Your task to perform on an android device: Empty the shopping cart on target. Add asus rog to the cart on target Image 0: 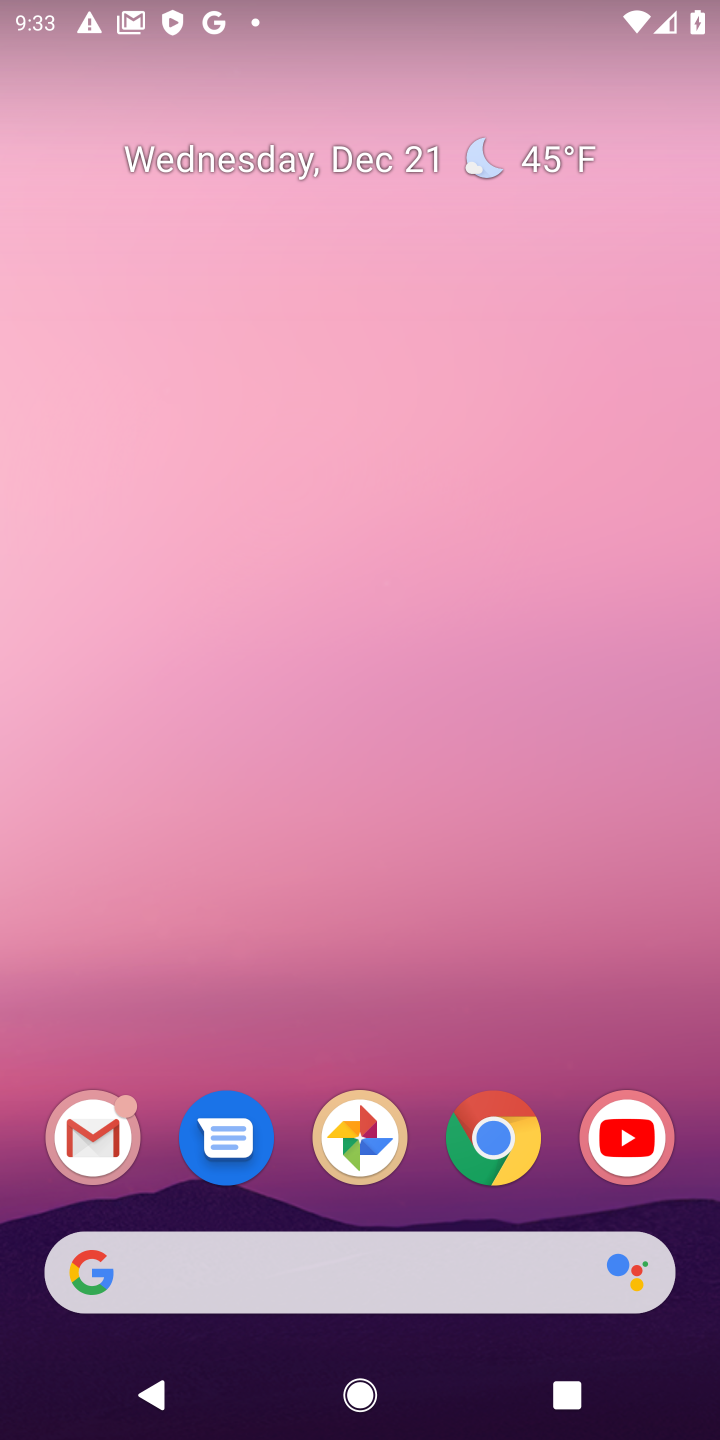
Step 0: click (501, 1145)
Your task to perform on an android device: Empty the shopping cart on target. Add asus rog to the cart on target Image 1: 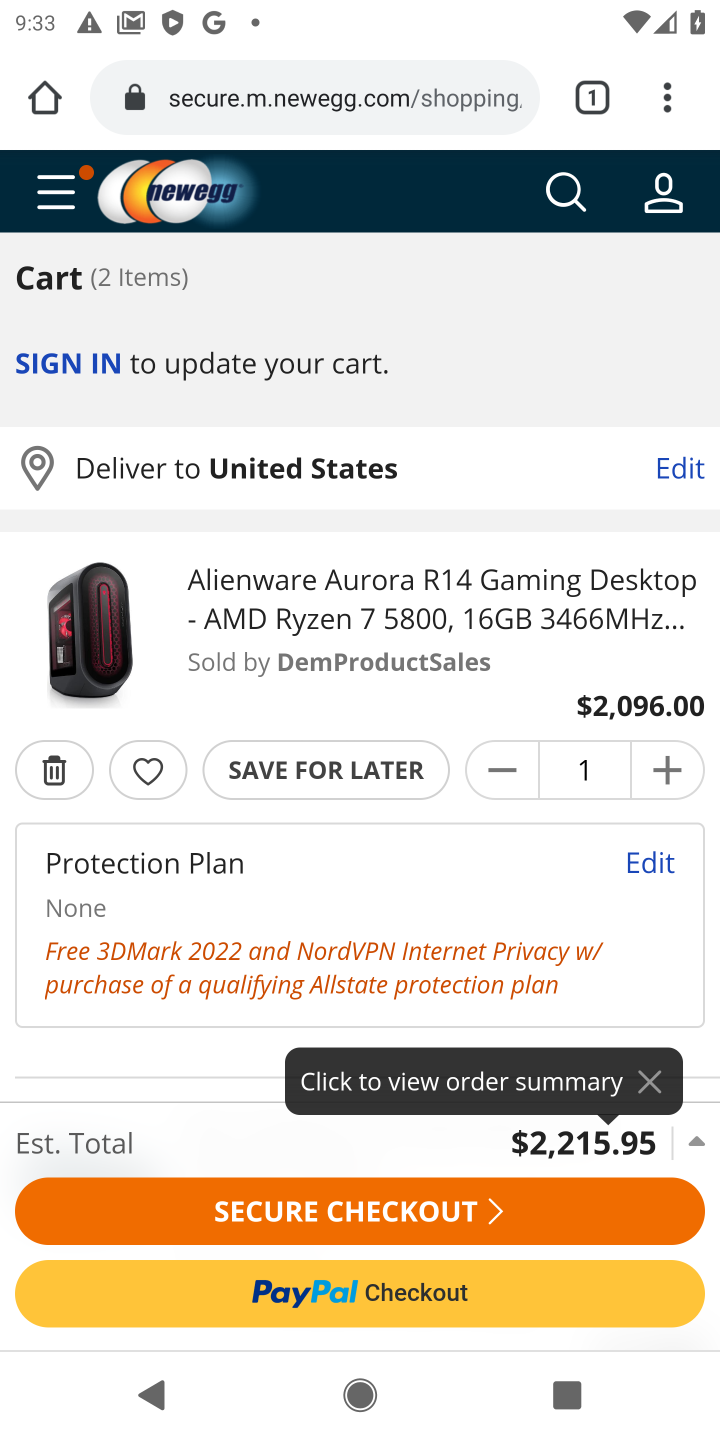
Step 1: click (275, 104)
Your task to perform on an android device: Empty the shopping cart on target. Add asus rog to the cart on target Image 2: 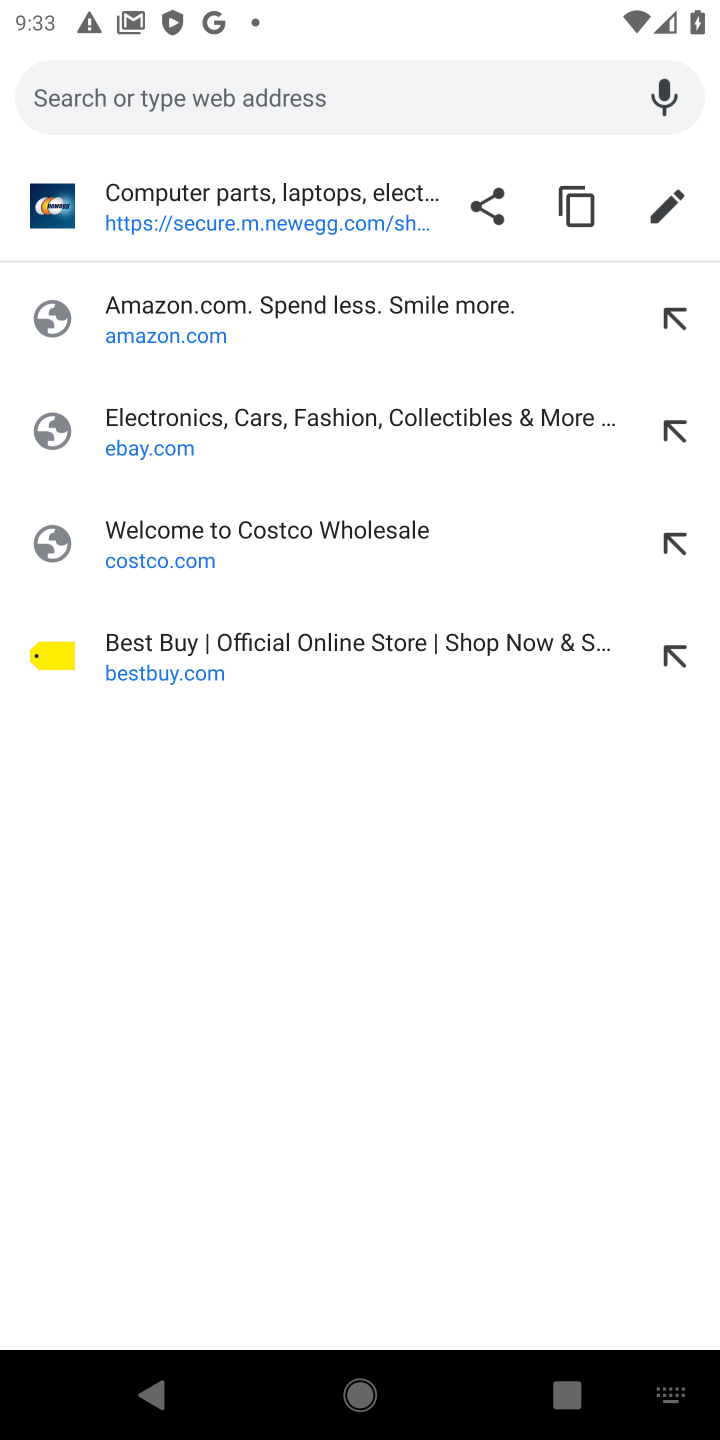
Step 2: type "target.com"
Your task to perform on an android device: Empty the shopping cart on target. Add asus rog to the cart on target Image 3: 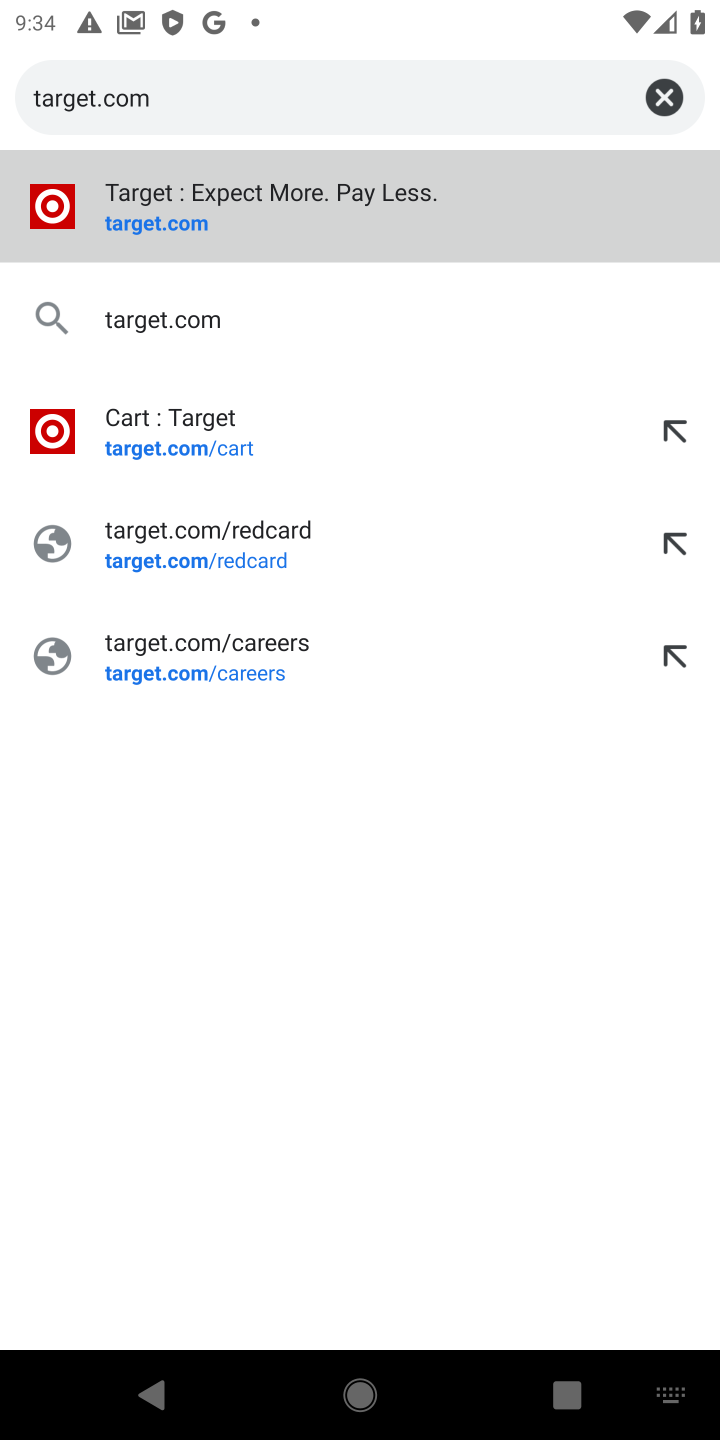
Step 3: click (167, 217)
Your task to perform on an android device: Empty the shopping cart on target. Add asus rog to the cart on target Image 4: 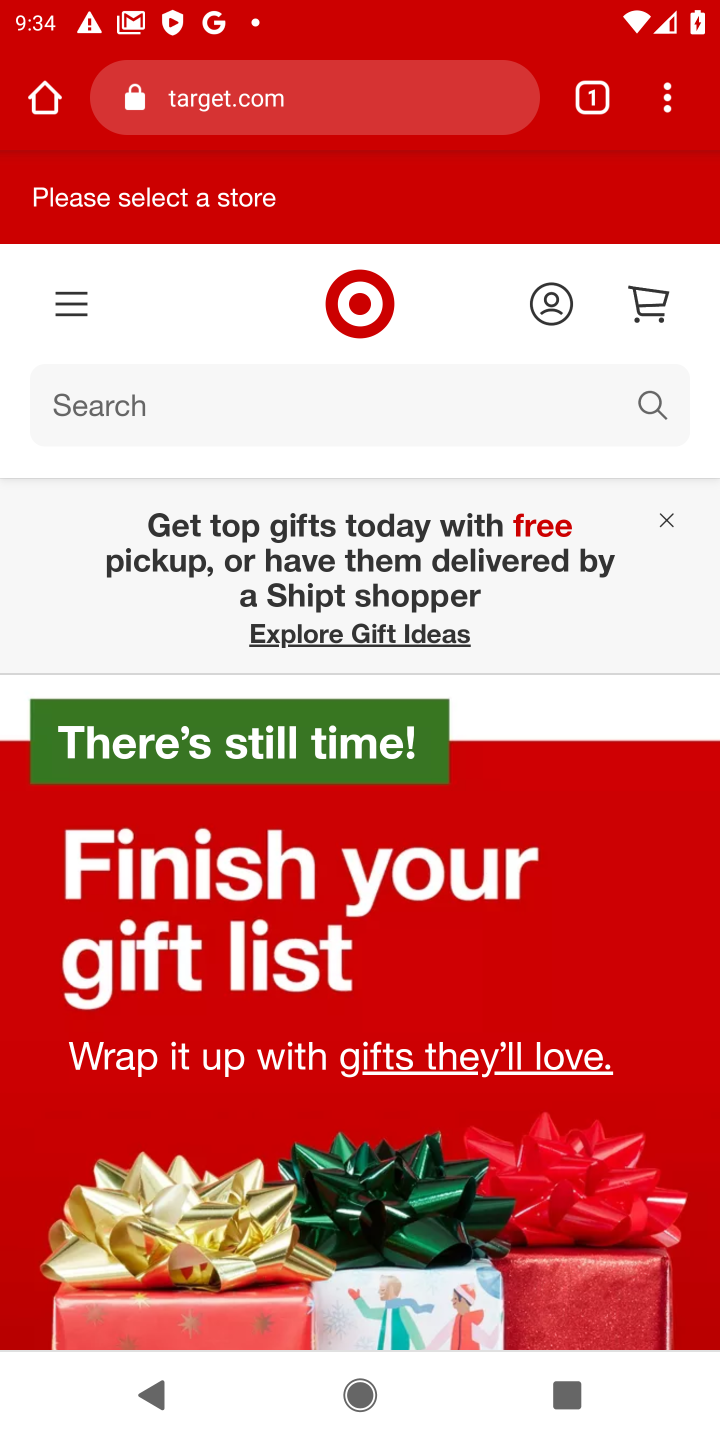
Step 4: click (647, 302)
Your task to perform on an android device: Empty the shopping cart on target. Add asus rog to the cart on target Image 5: 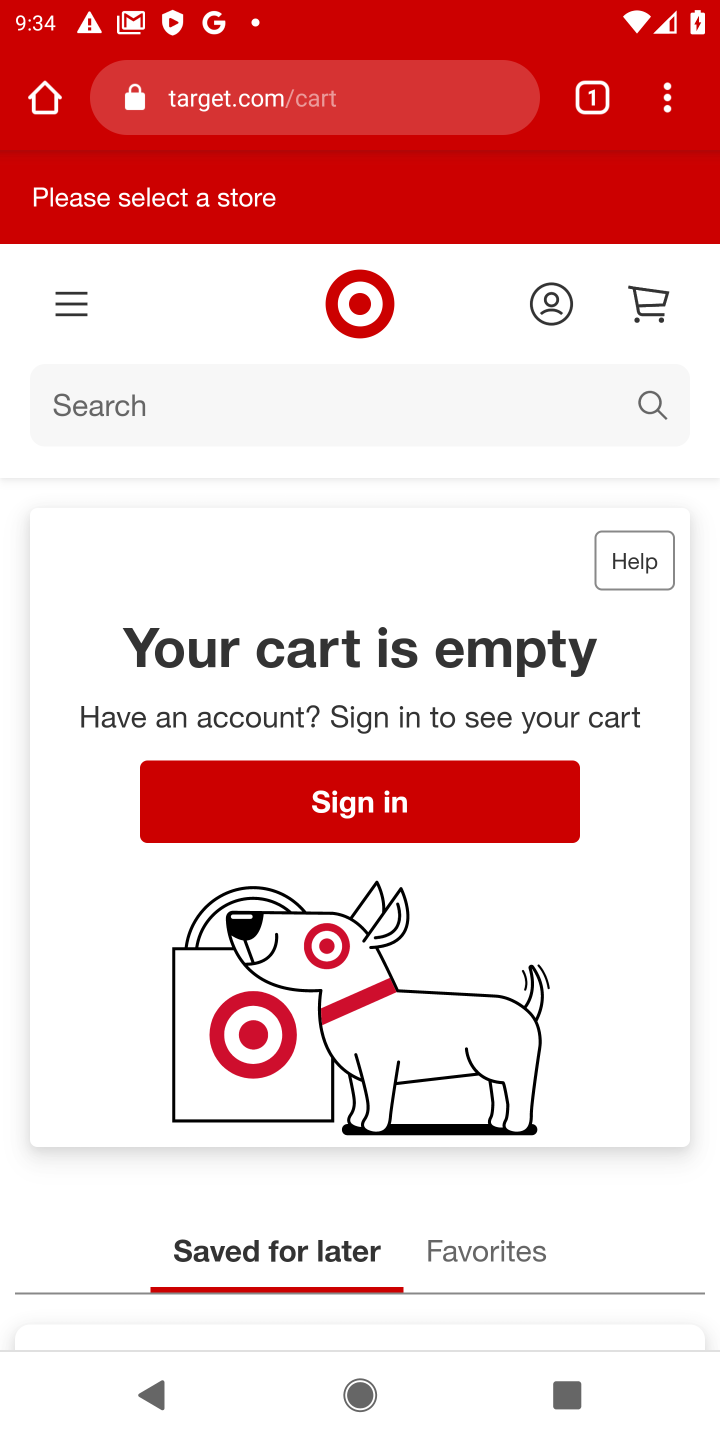
Step 5: click (102, 400)
Your task to perform on an android device: Empty the shopping cart on target. Add asus rog to the cart on target Image 6: 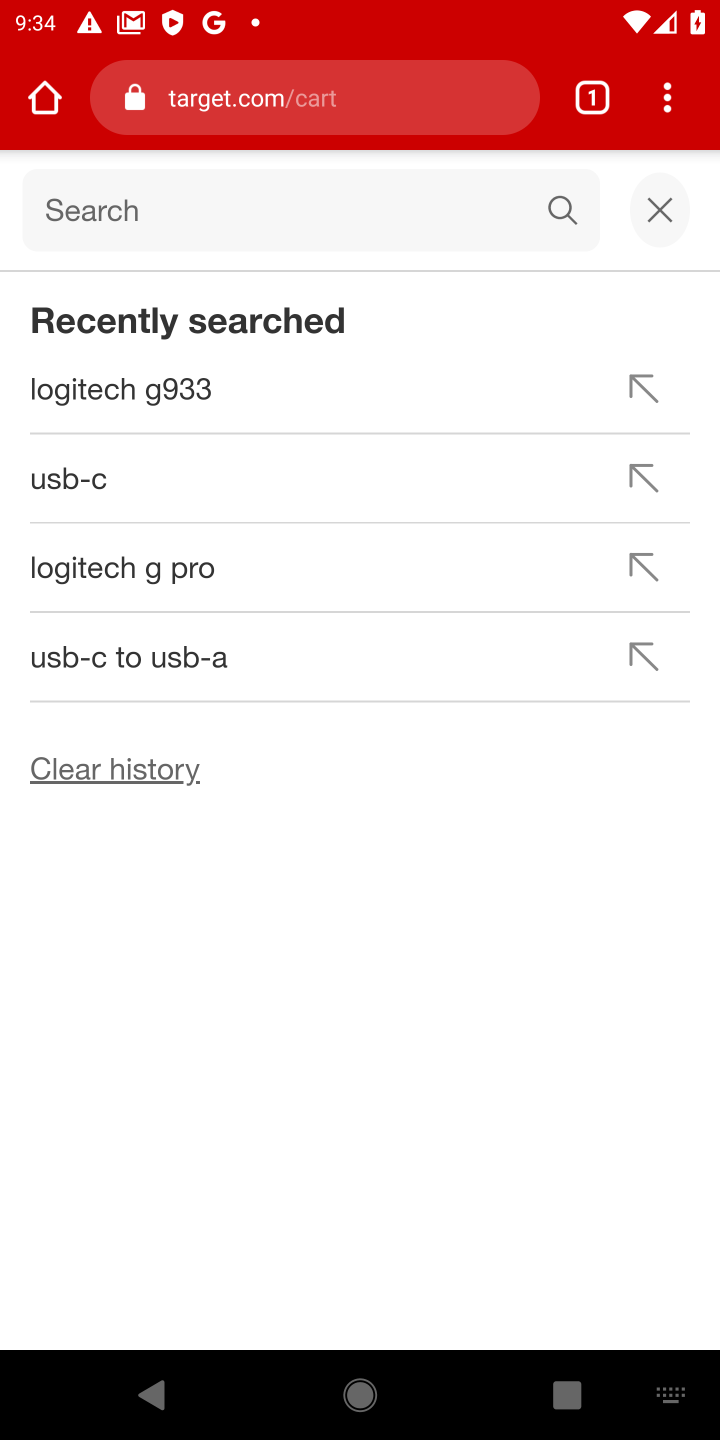
Step 6: type "asus rog"
Your task to perform on an android device: Empty the shopping cart on target. Add asus rog to the cart on target Image 7: 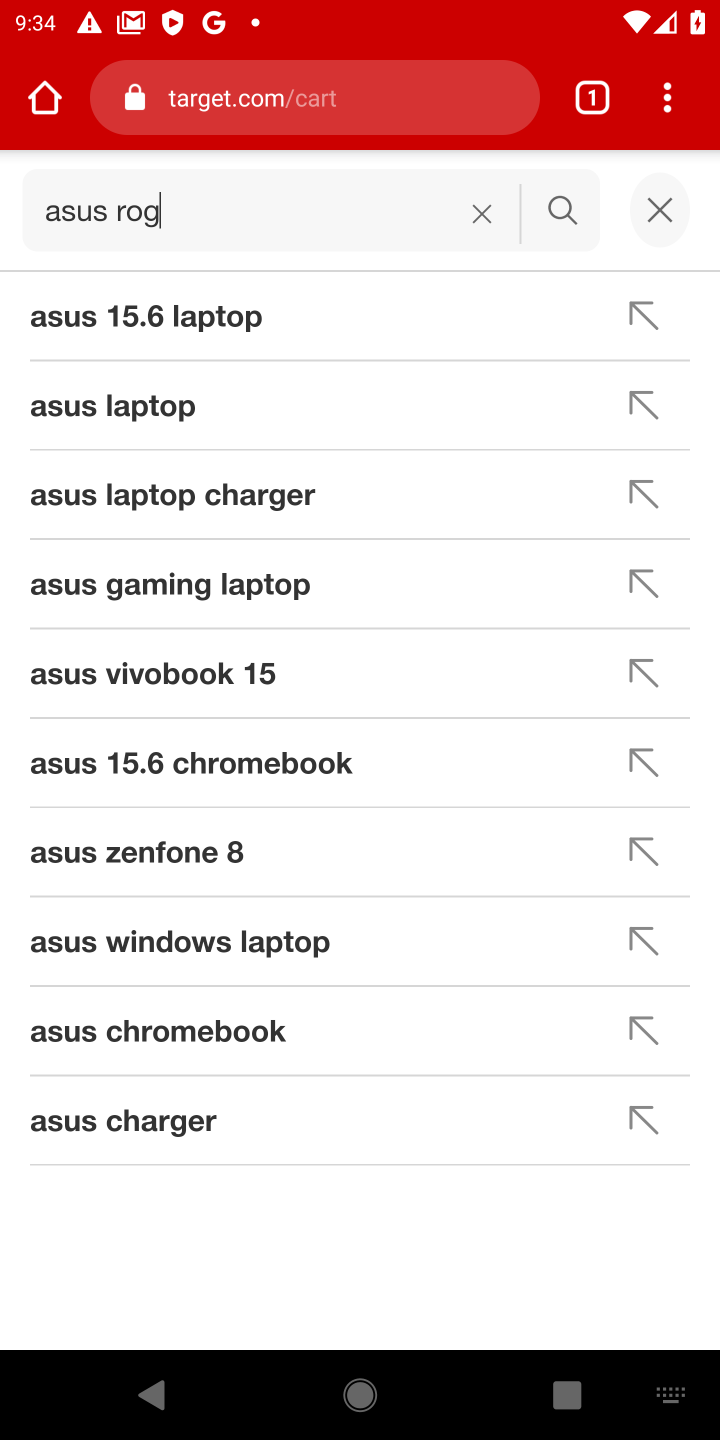
Step 7: click (555, 210)
Your task to perform on an android device: Empty the shopping cart on target. Add asus rog to the cart on target Image 8: 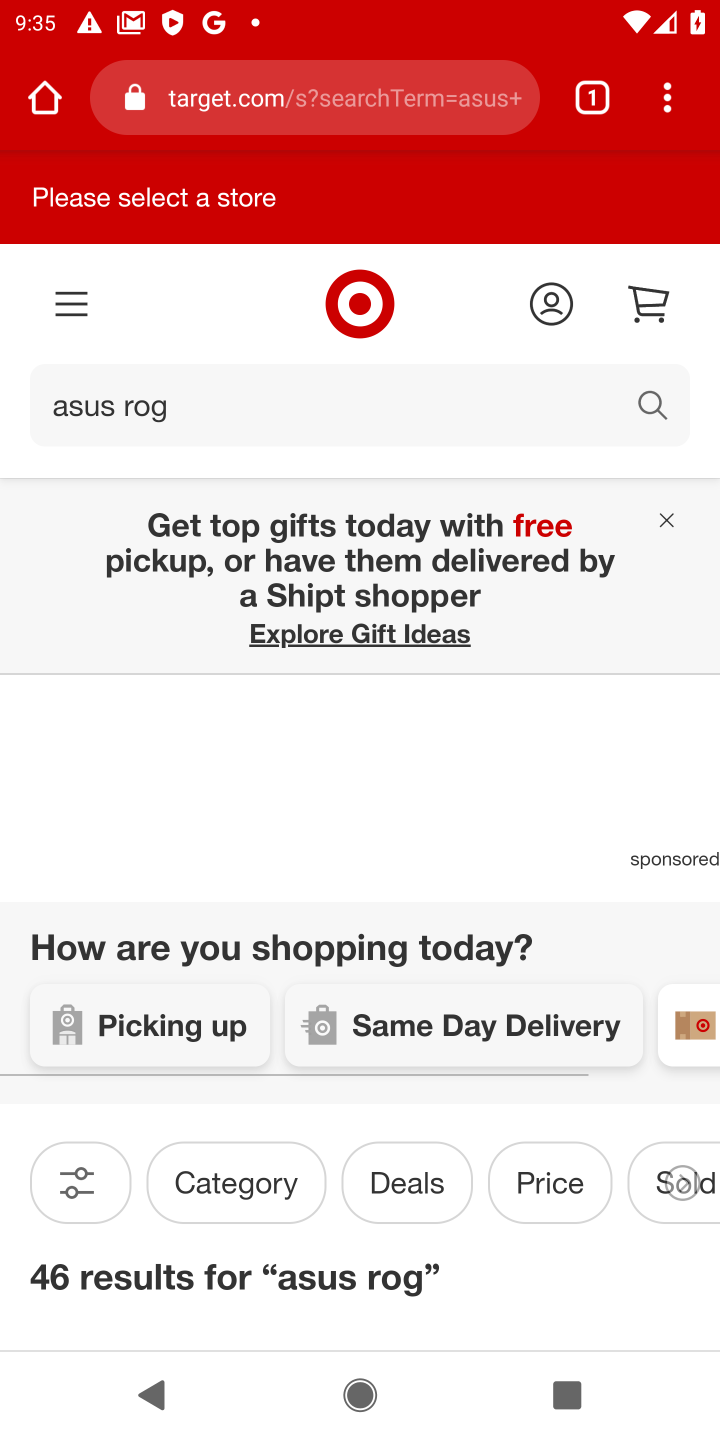
Step 8: drag from (326, 1014) to (340, 496)
Your task to perform on an android device: Empty the shopping cart on target. Add asus rog to the cart on target Image 9: 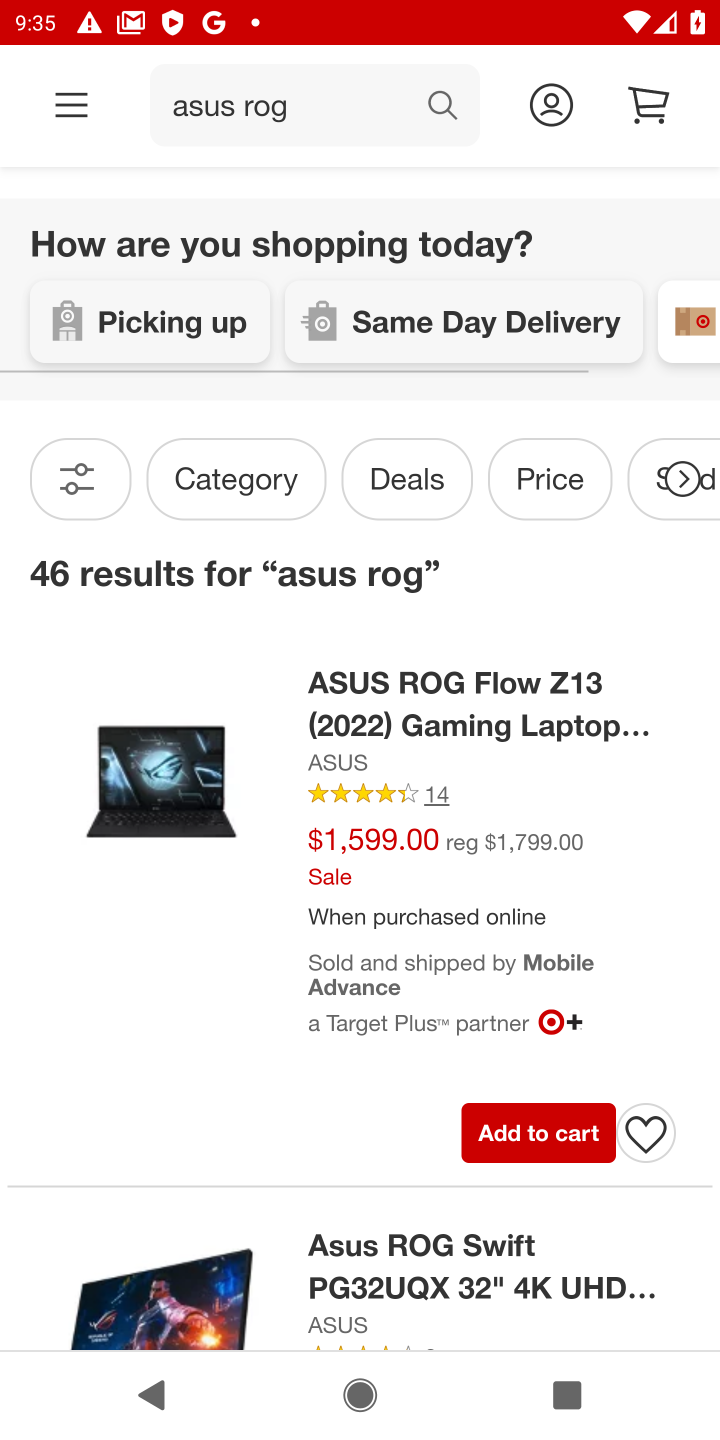
Step 9: click (527, 1137)
Your task to perform on an android device: Empty the shopping cart on target. Add asus rog to the cart on target Image 10: 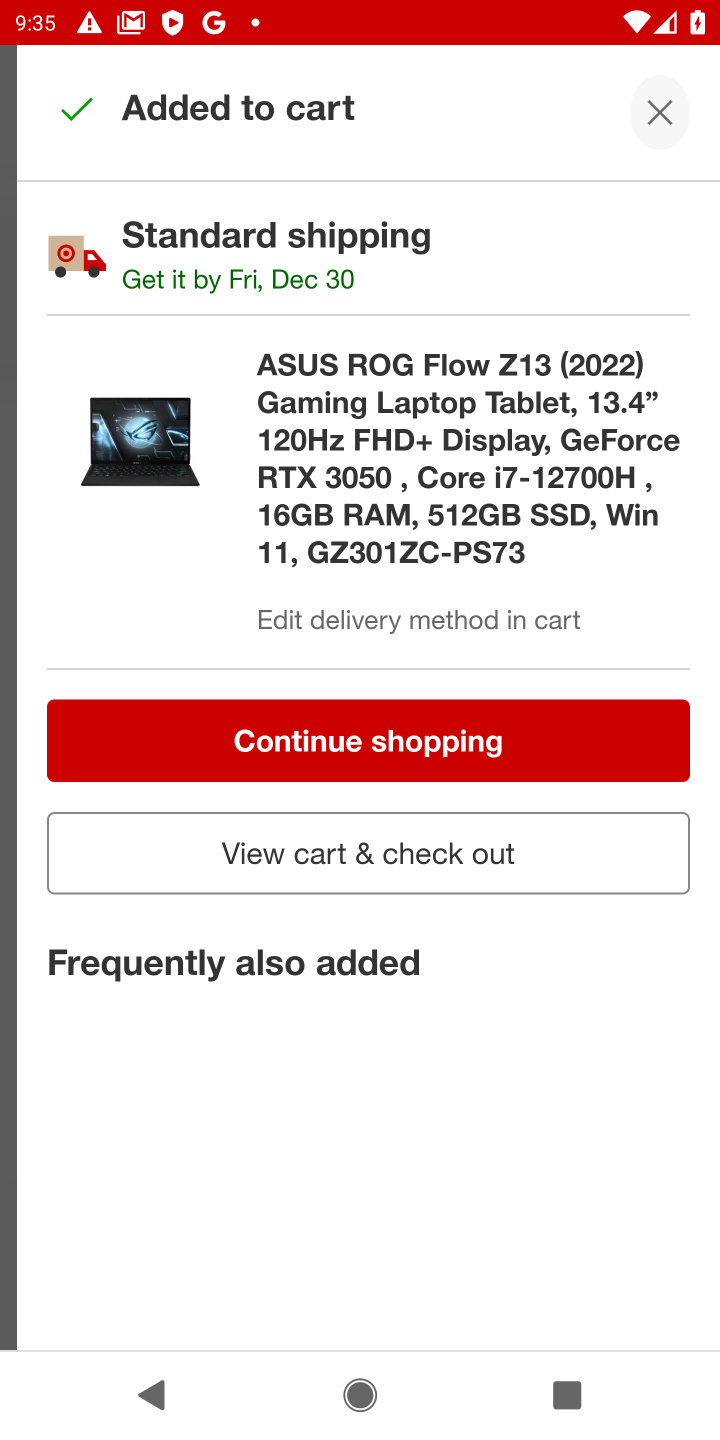
Step 10: task complete